Your task to perform on an android device: install app "Roku - Official Remote Control" Image 0: 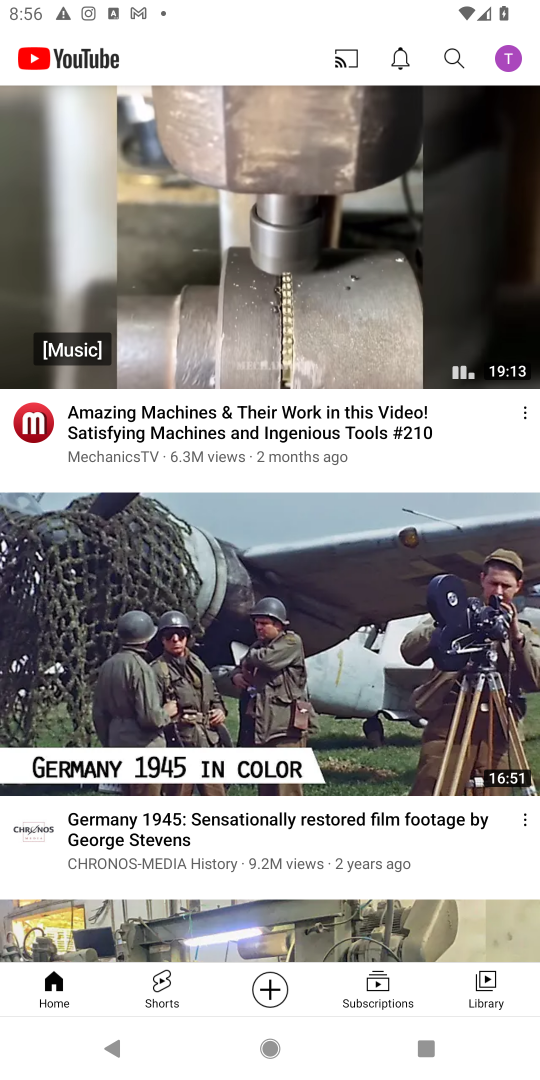
Step 0: press home button
Your task to perform on an android device: install app "Roku - Official Remote Control" Image 1: 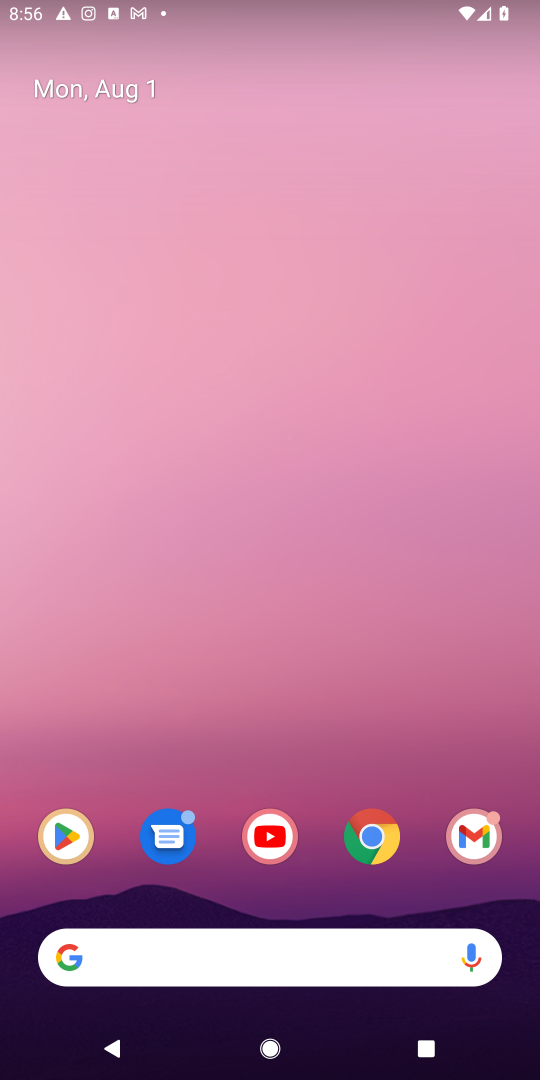
Step 1: click (79, 826)
Your task to perform on an android device: install app "Roku - Official Remote Control" Image 2: 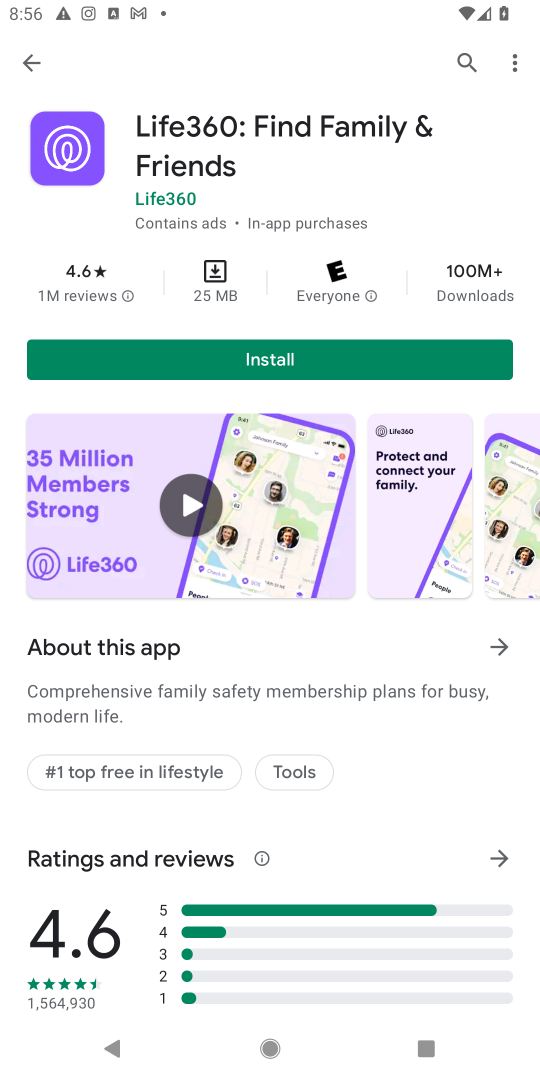
Step 2: click (467, 54)
Your task to perform on an android device: install app "Roku - Official Remote Control" Image 3: 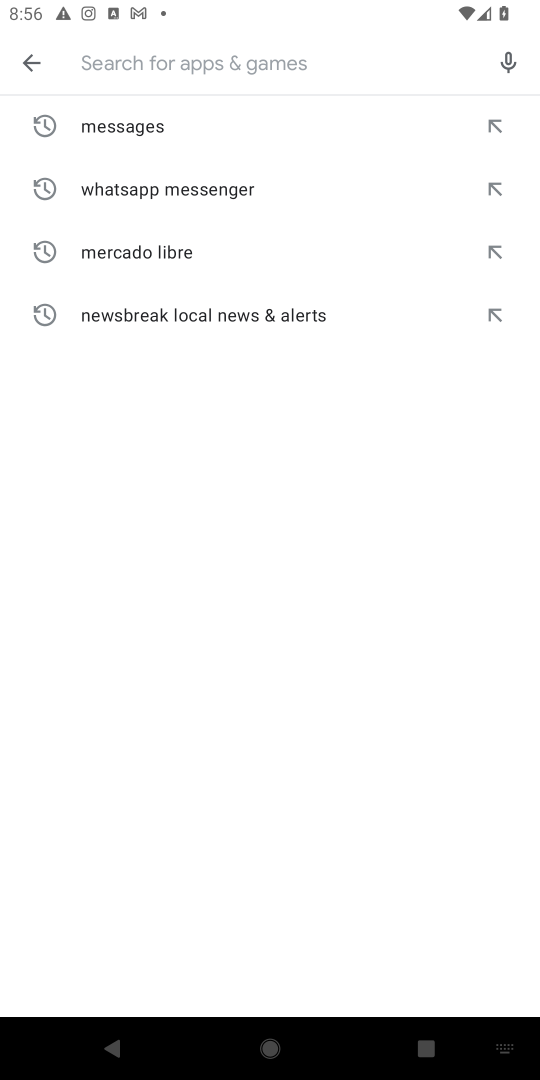
Step 3: type "Roku - Official Remote Control"
Your task to perform on an android device: install app "Roku - Official Remote Control" Image 4: 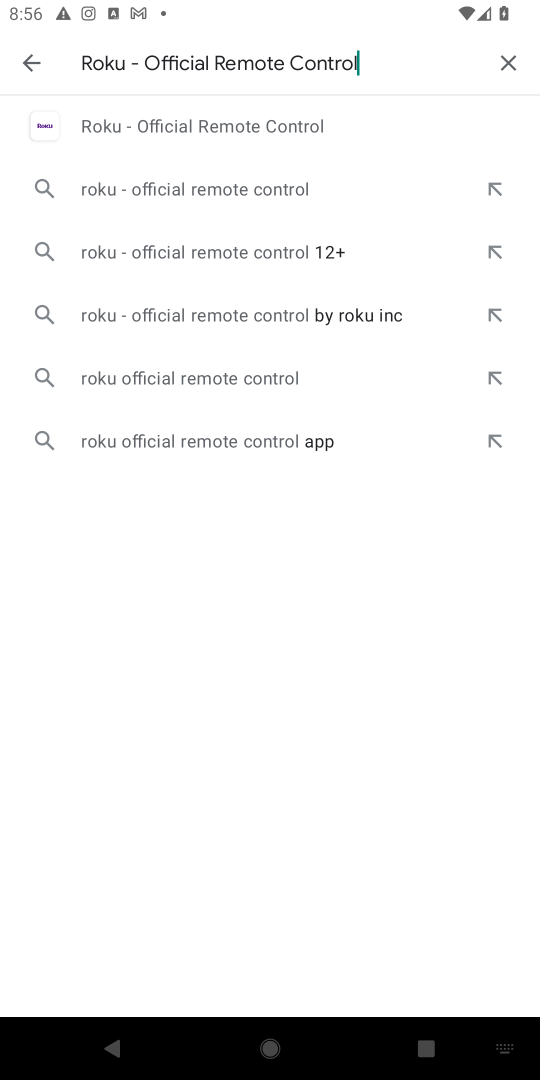
Step 4: click (236, 122)
Your task to perform on an android device: install app "Roku - Official Remote Control" Image 5: 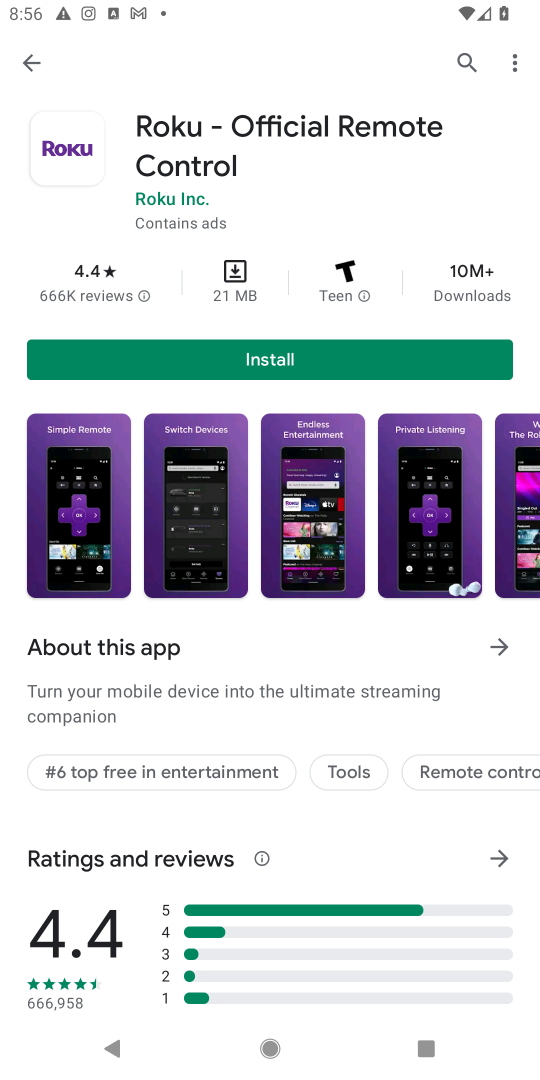
Step 5: click (302, 365)
Your task to perform on an android device: install app "Roku - Official Remote Control" Image 6: 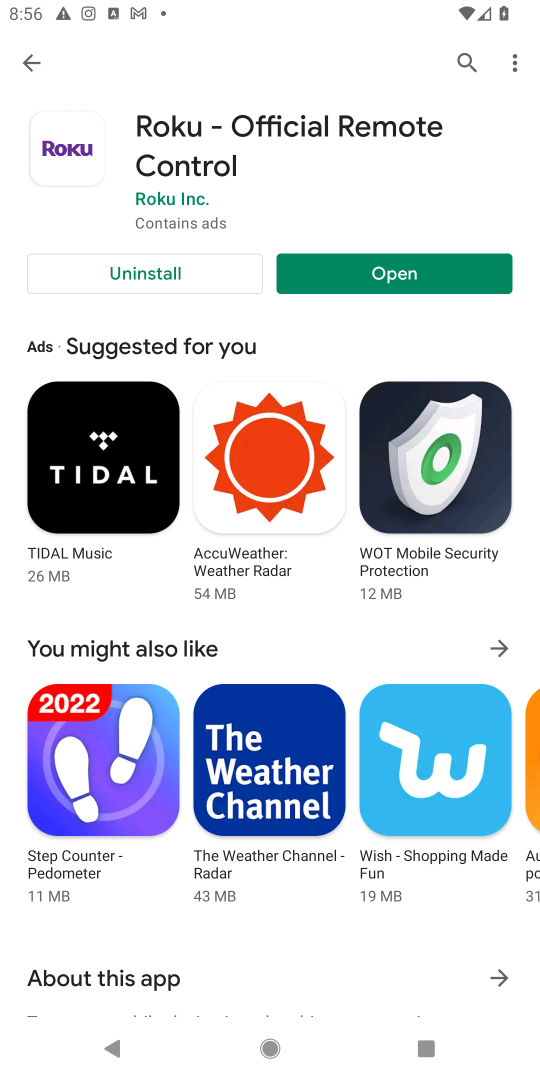
Step 6: task complete